Your task to perform on an android device: turn on the 24-hour format for clock Image 0: 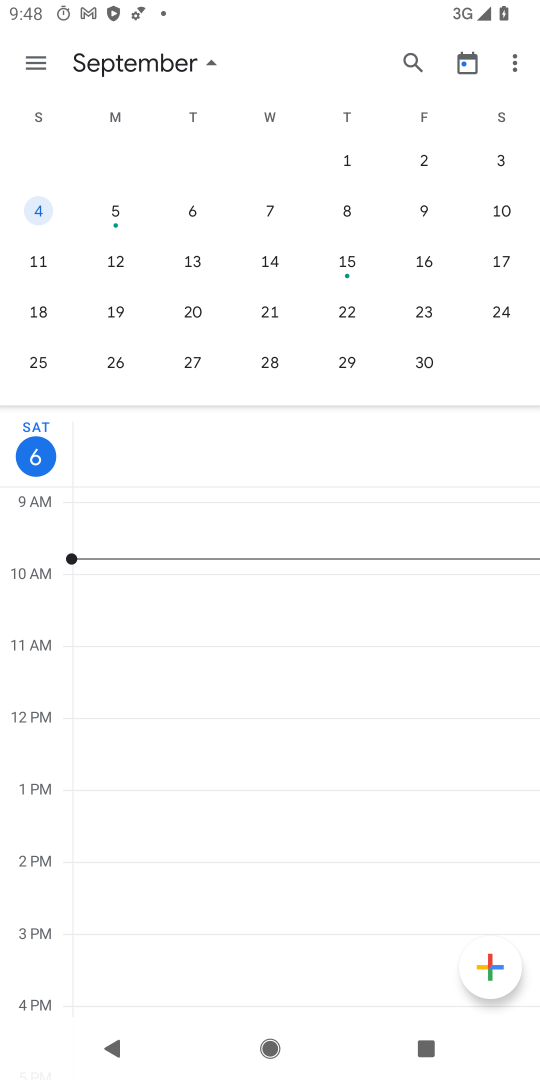
Step 0: press home button
Your task to perform on an android device: turn on the 24-hour format for clock Image 1: 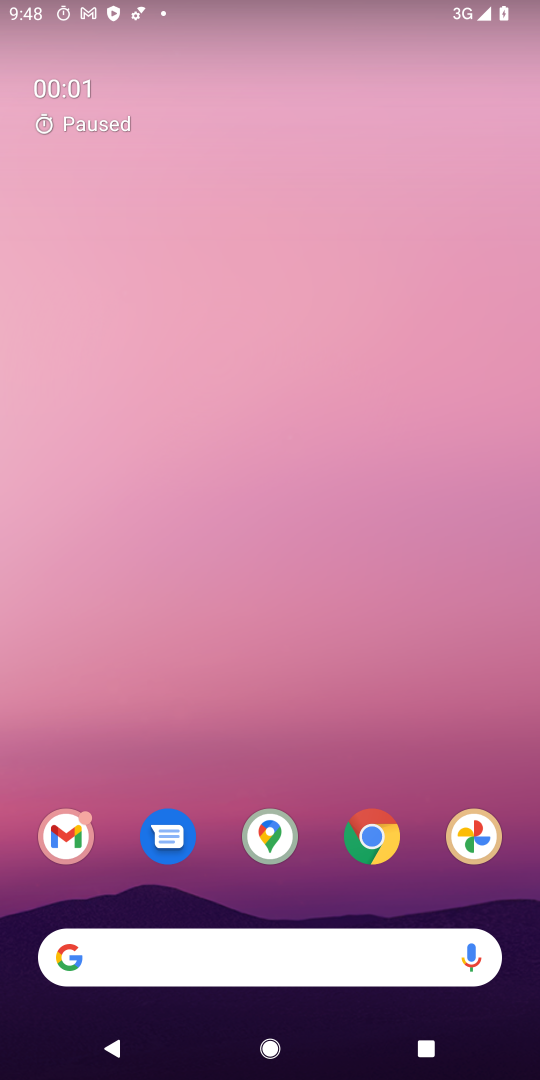
Step 1: drag from (501, 970) to (229, 14)
Your task to perform on an android device: turn on the 24-hour format for clock Image 2: 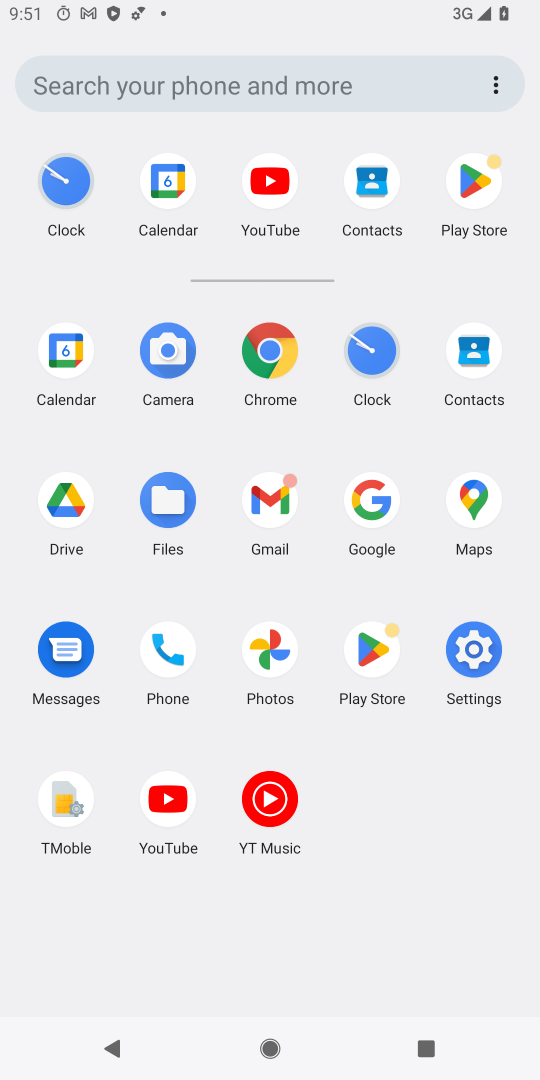
Step 2: click (359, 354)
Your task to perform on an android device: turn on the 24-hour format for clock Image 3: 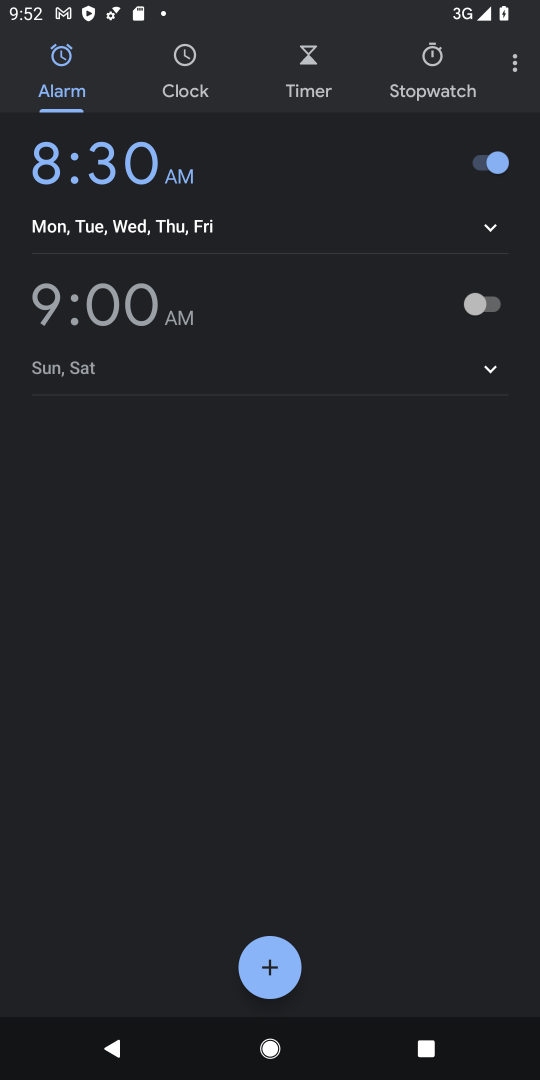
Step 3: click (512, 75)
Your task to perform on an android device: turn on the 24-hour format for clock Image 4: 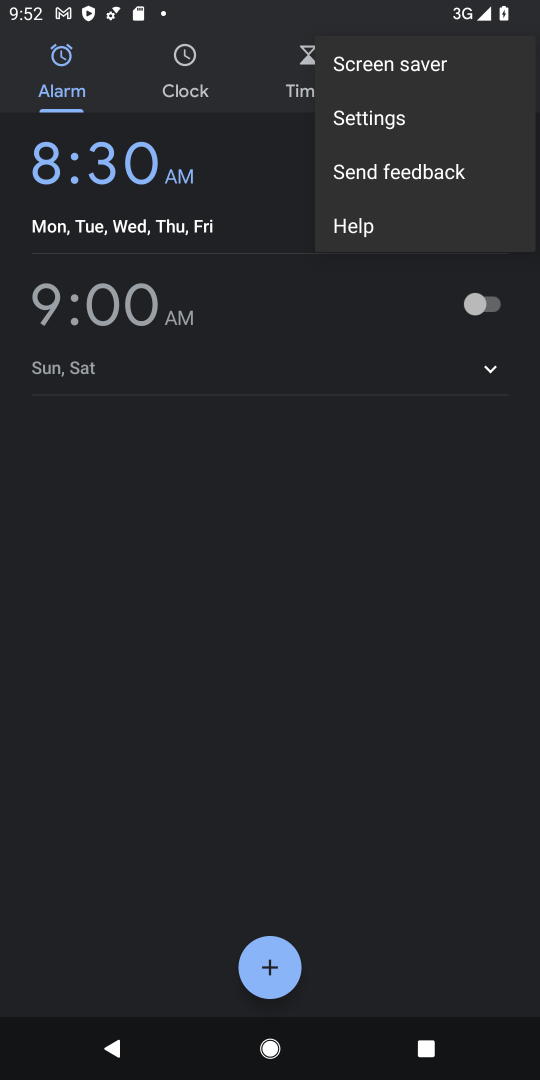
Step 4: click (357, 138)
Your task to perform on an android device: turn on the 24-hour format for clock Image 5: 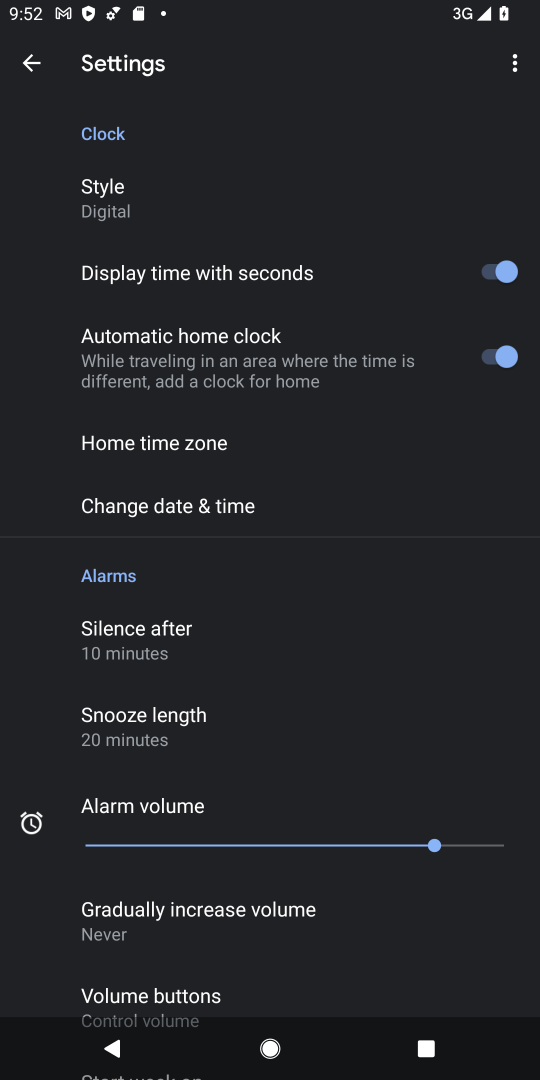
Step 5: click (258, 520)
Your task to perform on an android device: turn on the 24-hour format for clock Image 6: 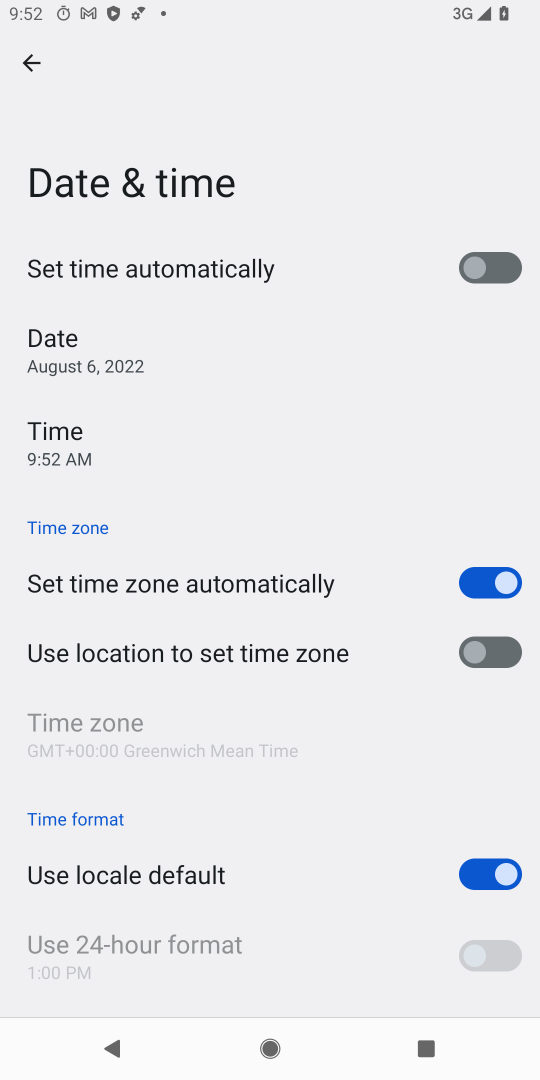
Step 6: task complete